Your task to perform on an android device: What is the news today? Image 0: 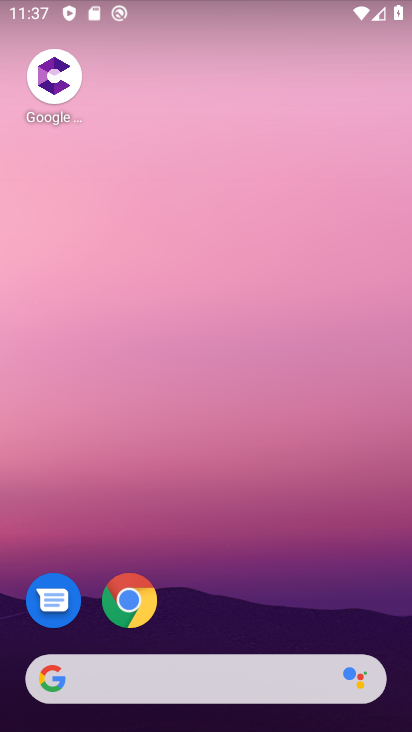
Step 0: drag from (197, 594) to (244, 256)
Your task to perform on an android device: What is the news today? Image 1: 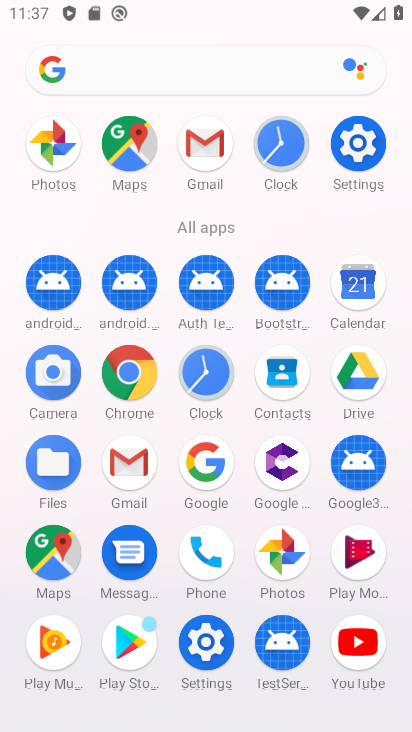
Step 1: click (139, 378)
Your task to perform on an android device: What is the news today? Image 2: 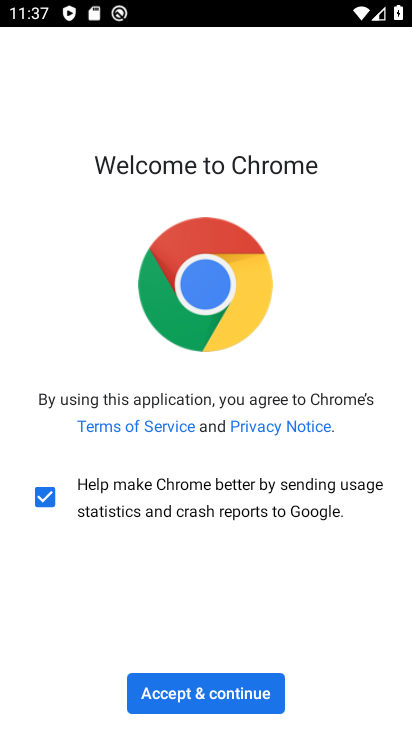
Step 2: click (247, 697)
Your task to perform on an android device: What is the news today? Image 3: 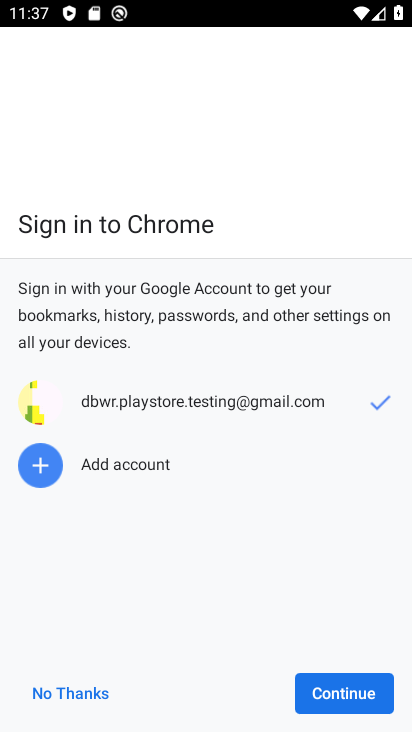
Step 3: click (333, 703)
Your task to perform on an android device: What is the news today? Image 4: 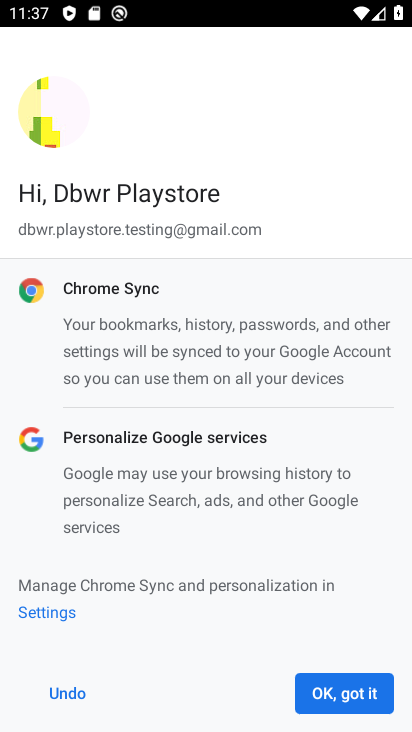
Step 4: click (370, 702)
Your task to perform on an android device: What is the news today? Image 5: 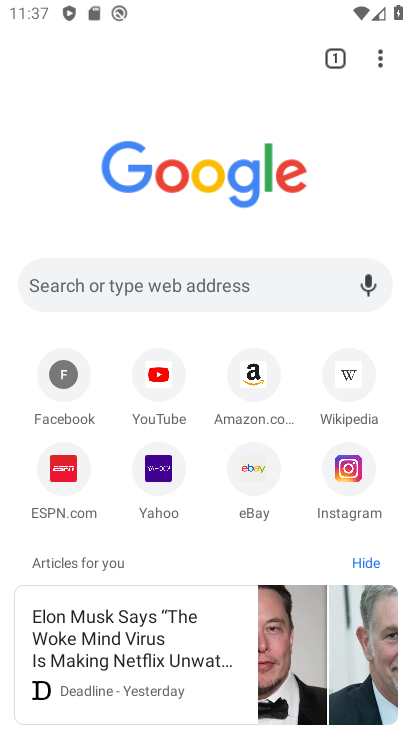
Step 5: click (183, 283)
Your task to perform on an android device: What is the news today? Image 6: 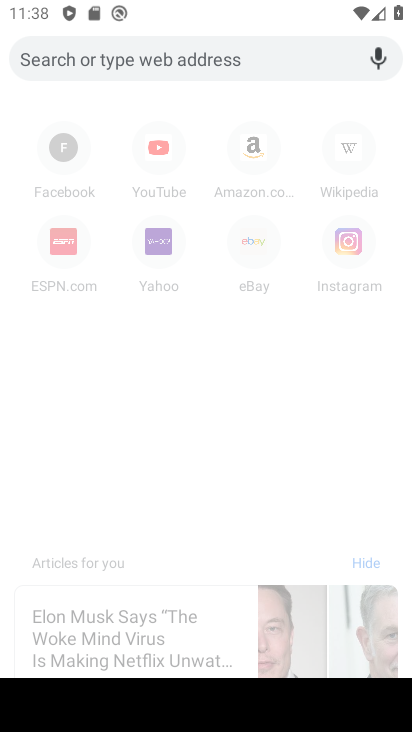
Step 6: type "what is the news today?"
Your task to perform on an android device: What is the news today? Image 7: 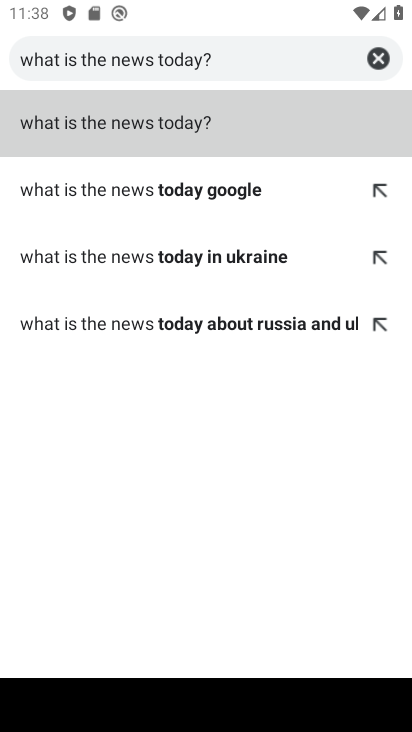
Step 7: click (161, 129)
Your task to perform on an android device: What is the news today? Image 8: 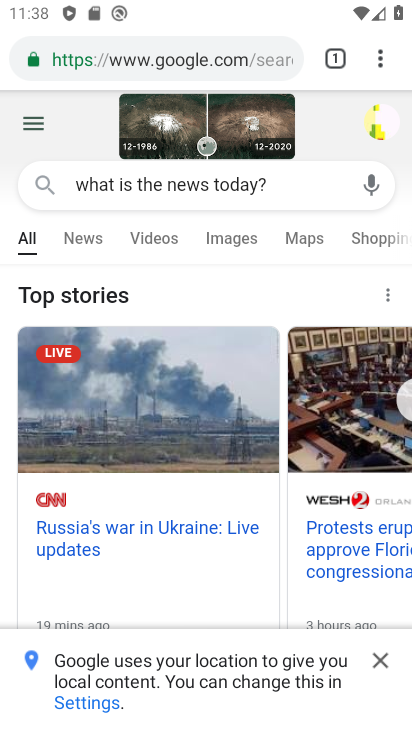
Step 8: task complete